Your task to perform on an android device: Search for sushi restaurants on Maps Image 0: 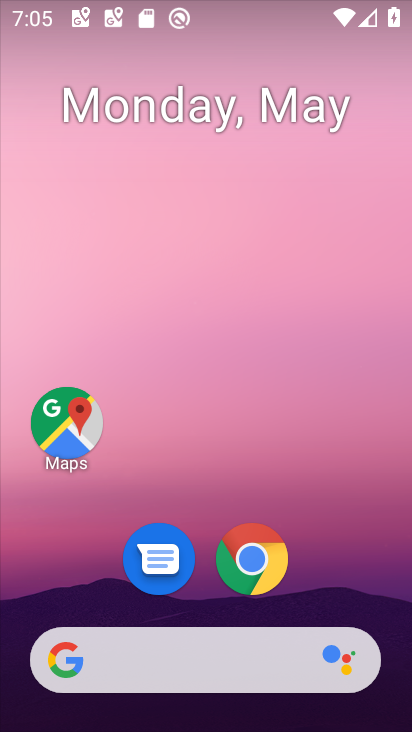
Step 0: drag from (387, 655) to (351, 278)
Your task to perform on an android device: Search for sushi restaurants on Maps Image 1: 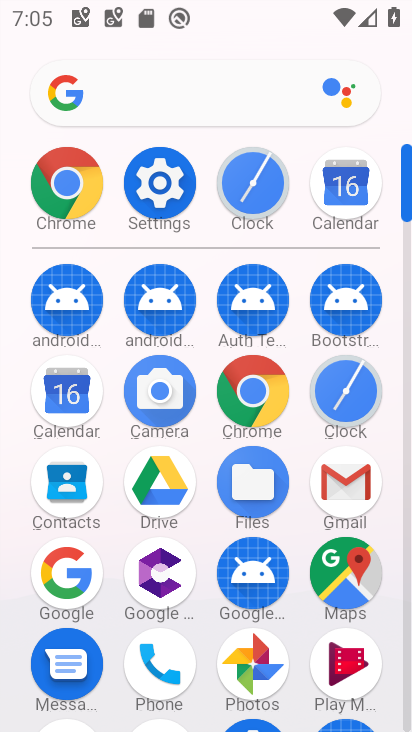
Step 1: click (343, 578)
Your task to perform on an android device: Search for sushi restaurants on Maps Image 2: 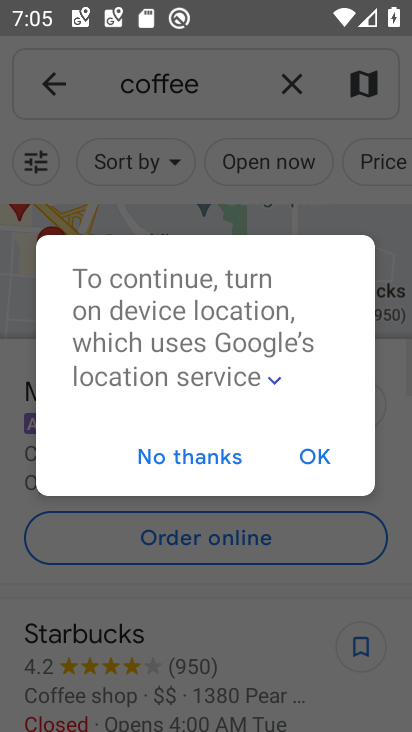
Step 2: click (202, 447)
Your task to perform on an android device: Search for sushi restaurants on Maps Image 3: 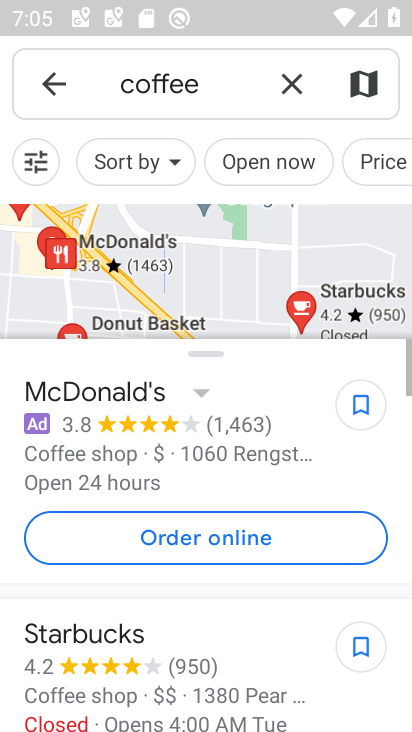
Step 3: click (293, 74)
Your task to perform on an android device: Search for sushi restaurants on Maps Image 4: 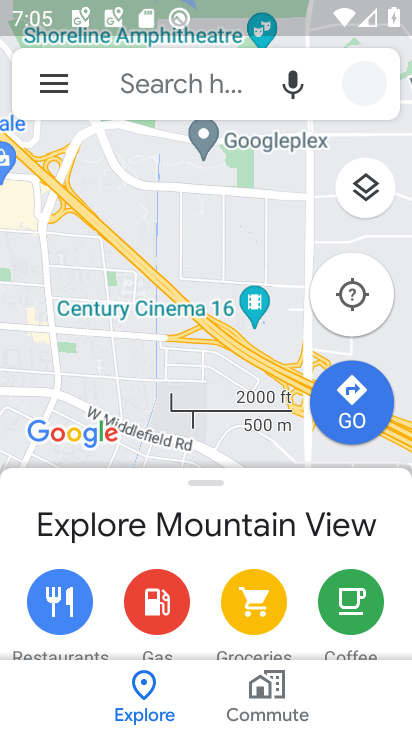
Step 4: click (139, 84)
Your task to perform on an android device: Search for sushi restaurants on Maps Image 5: 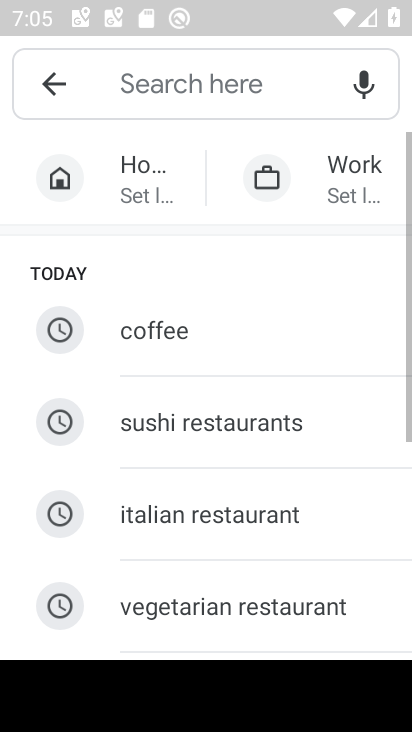
Step 5: click (218, 411)
Your task to perform on an android device: Search for sushi restaurants on Maps Image 6: 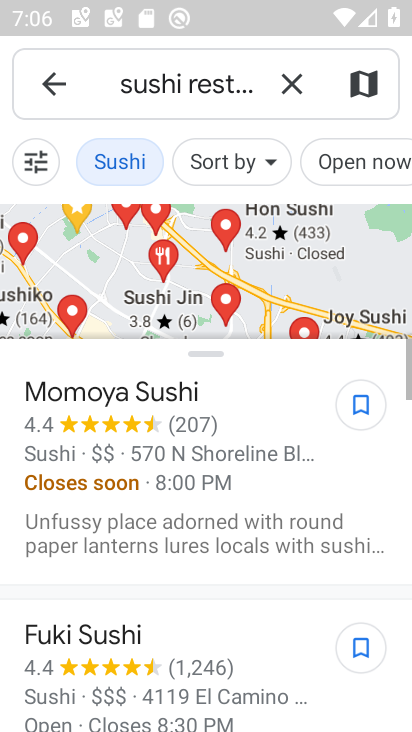
Step 6: task complete